Your task to perform on an android device: delete location history Image 0: 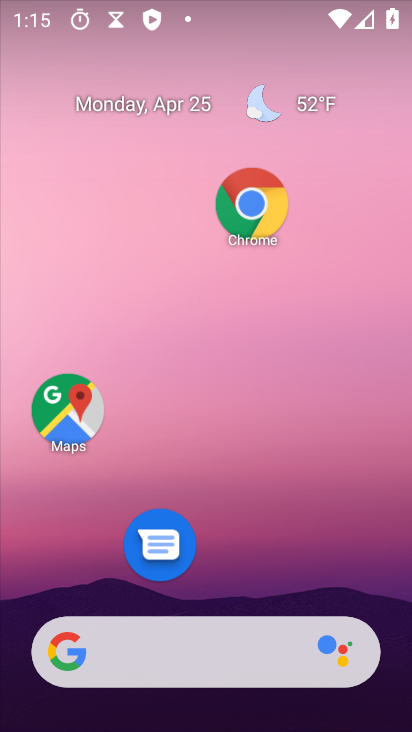
Step 0: drag from (254, 678) to (196, 174)
Your task to perform on an android device: delete location history Image 1: 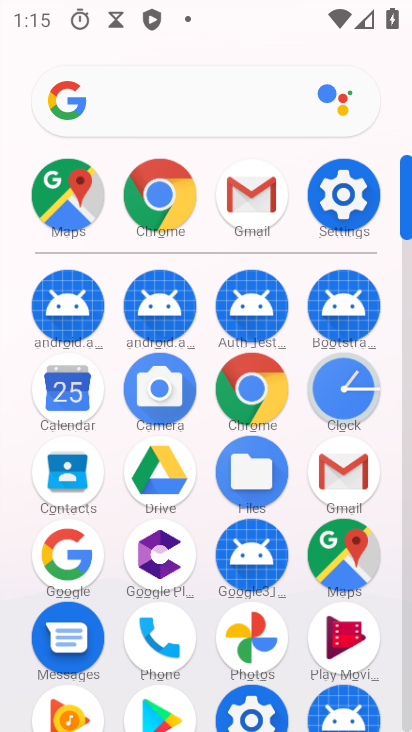
Step 1: click (341, 195)
Your task to perform on an android device: delete location history Image 2: 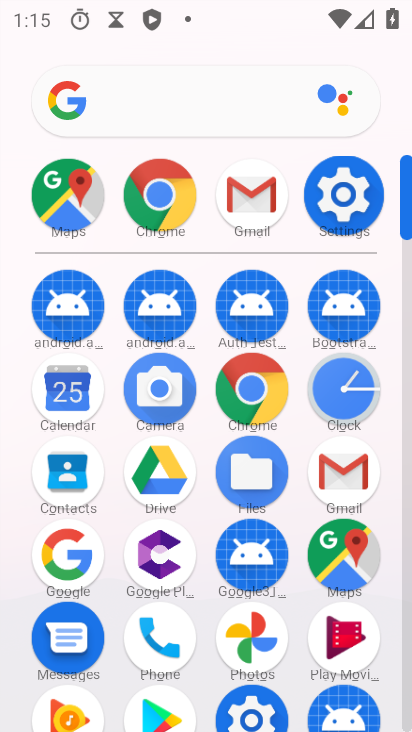
Step 2: click (354, 193)
Your task to perform on an android device: delete location history Image 3: 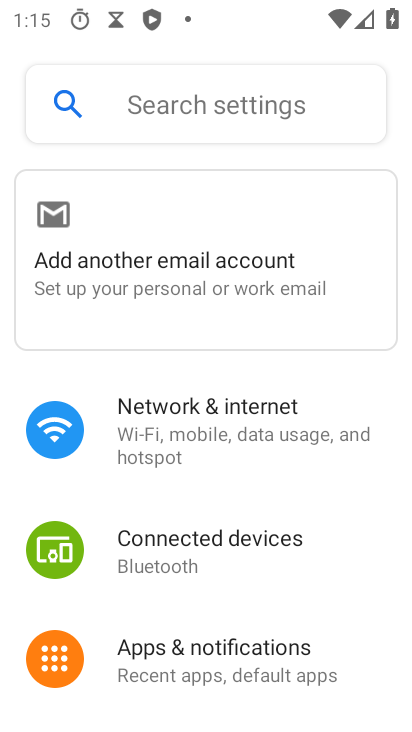
Step 3: click (204, 109)
Your task to perform on an android device: delete location history Image 4: 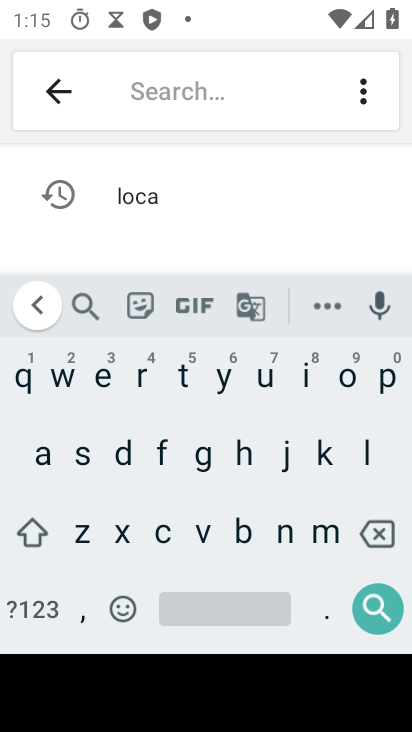
Step 4: click (153, 191)
Your task to perform on an android device: delete location history Image 5: 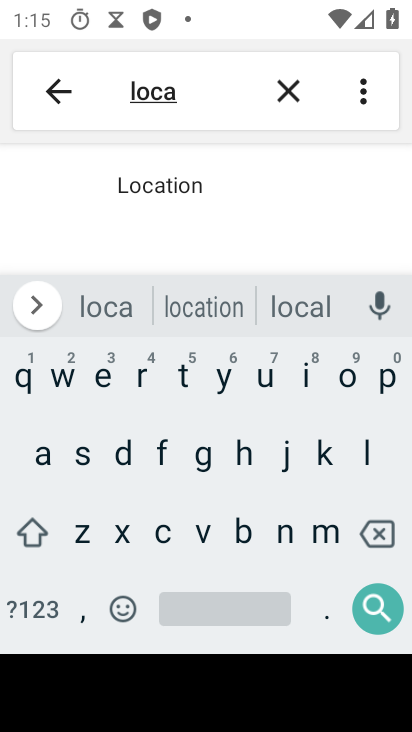
Step 5: drag from (183, 236) to (177, 150)
Your task to perform on an android device: delete location history Image 6: 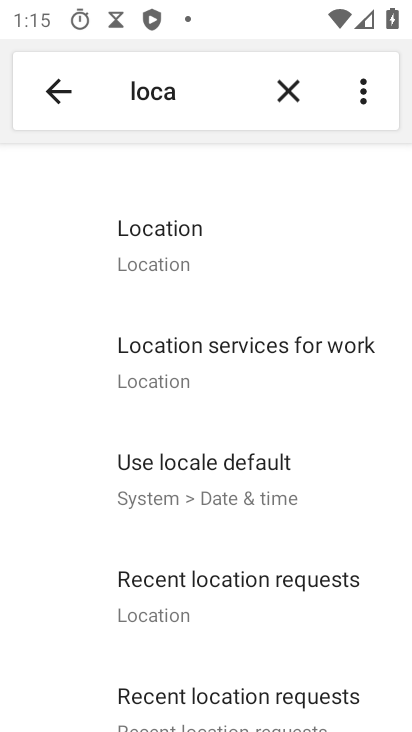
Step 6: click (162, 265)
Your task to perform on an android device: delete location history Image 7: 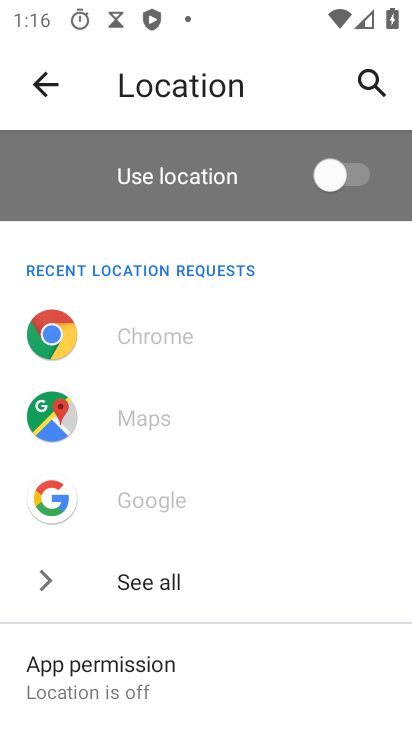
Step 7: drag from (158, 641) to (168, 356)
Your task to perform on an android device: delete location history Image 8: 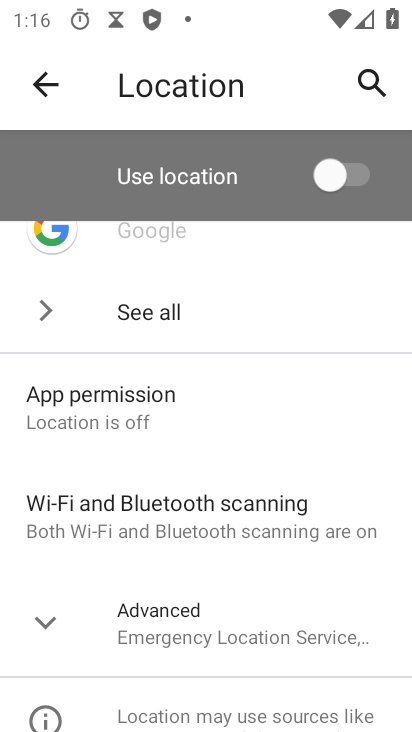
Step 8: drag from (139, 619) to (183, 425)
Your task to perform on an android device: delete location history Image 9: 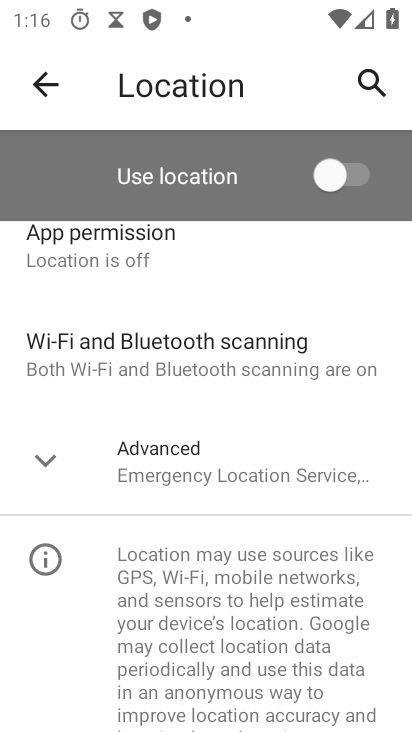
Step 9: click (54, 448)
Your task to perform on an android device: delete location history Image 10: 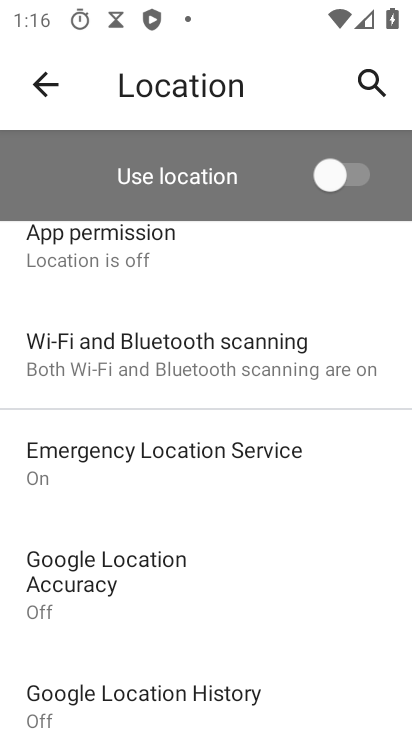
Step 10: click (130, 681)
Your task to perform on an android device: delete location history Image 11: 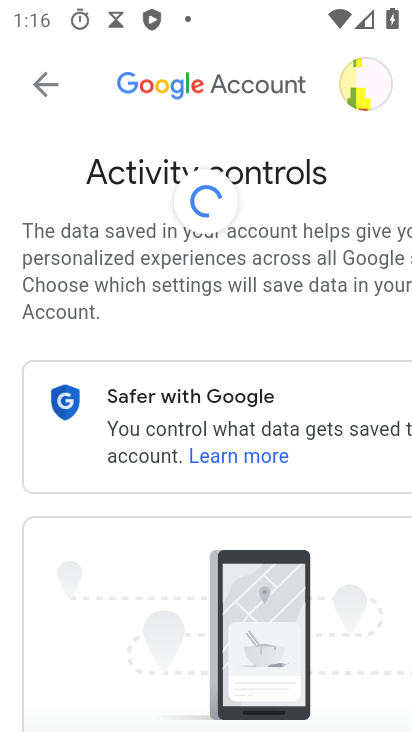
Step 11: drag from (236, 656) to (336, 293)
Your task to perform on an android device: delete location history Image 12: 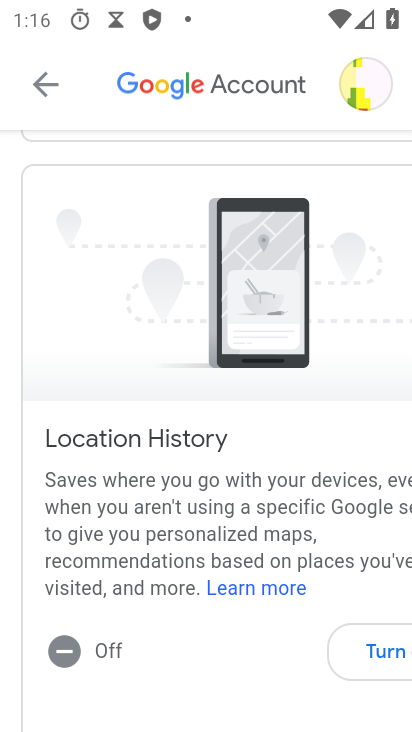
Step 12: drag from (247, 570) to (269, 326)
Your task to perform on an android device: delete location history Image 13: 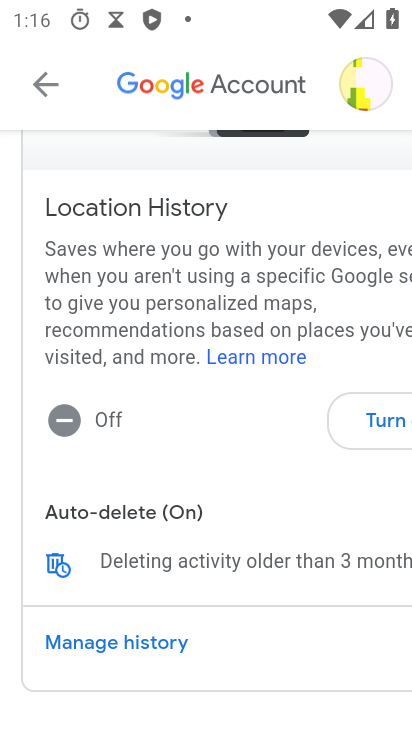
Step 13: click (220, 554)
Your task to perform on an android device: delete location history Image 14: 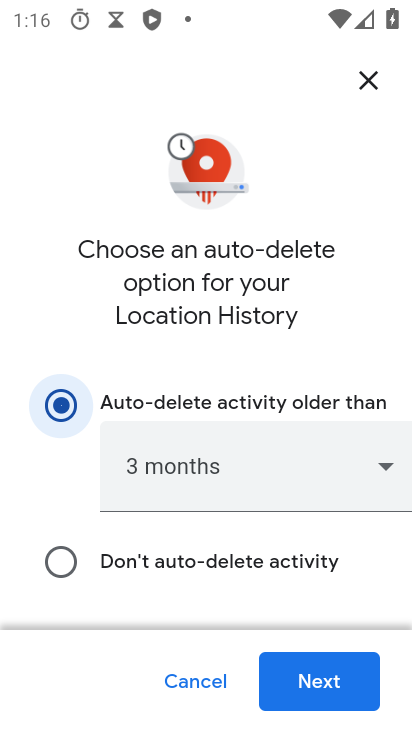
Step 14: click (338, 694)
Your task to perform on an android device: delete location history Image 15: 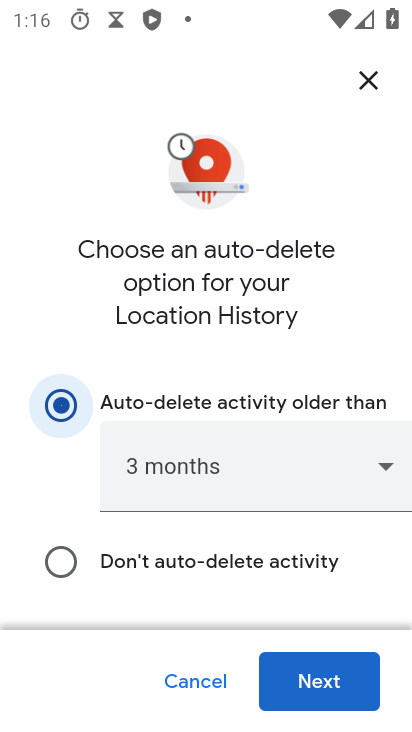
Step 15: task complete